Your task to perform on an android device: Go to Maps Image 0: 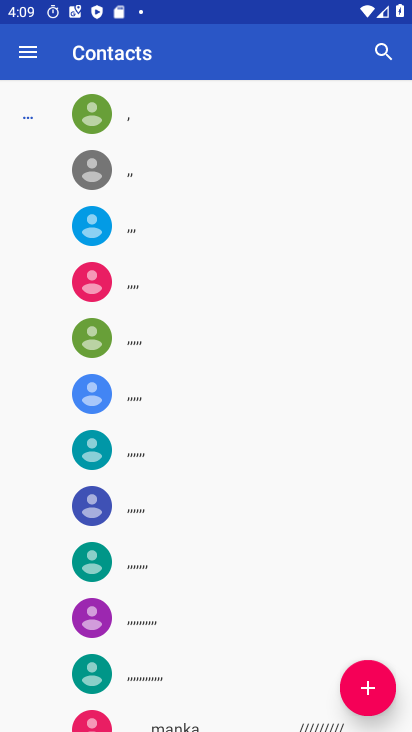
Step 0: press home button
Your task to perform on an android device: Go to Maps Image 1: 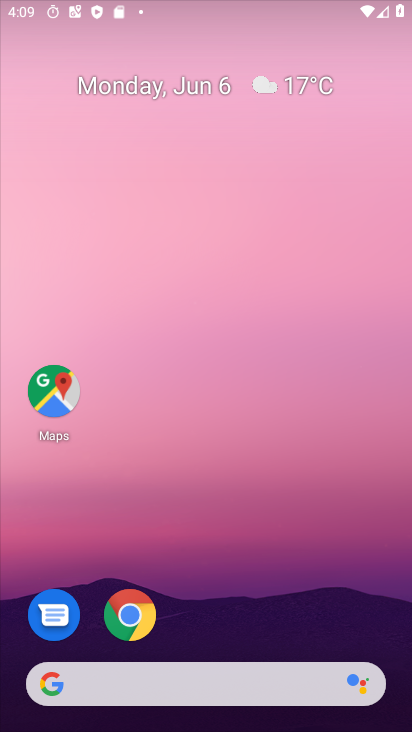
Step 1: drag from (285, 610) to (274, 34)
Your task to perform on an android device: Go to Maps Image 2: 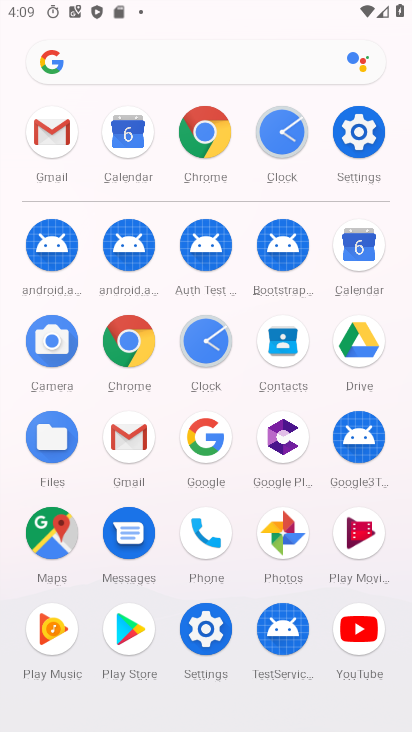
Step 2: click (44, 548)
Your task to perform on an android device: Go to Maps Image 3: 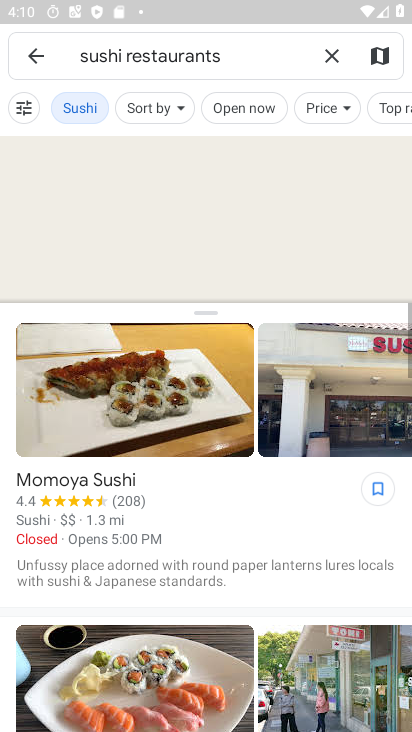
Step 3: task complete